Your task to perform on an android device: Go to accessibility settings Image 0: 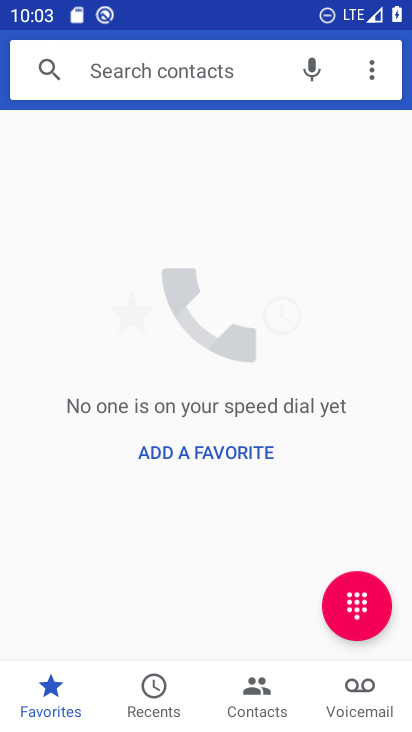
Step 0: press home button
Your task to perform on an android device: Go to accessibility settings Image 1: 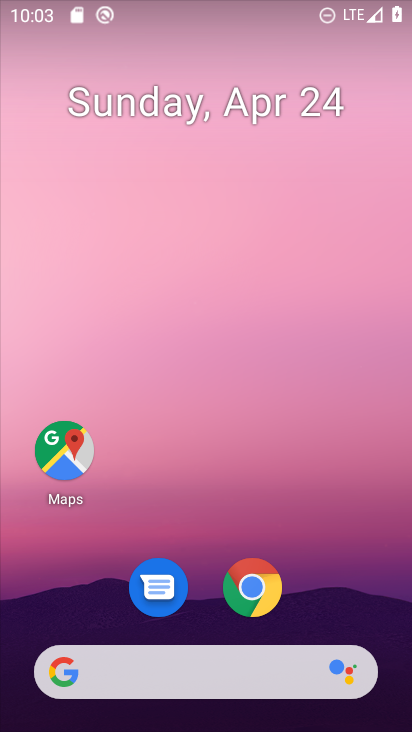
Step 1: drag from (358, 592) to (336, 147)
Your task to perform on an android device: Go to accessibility settings Image 2: 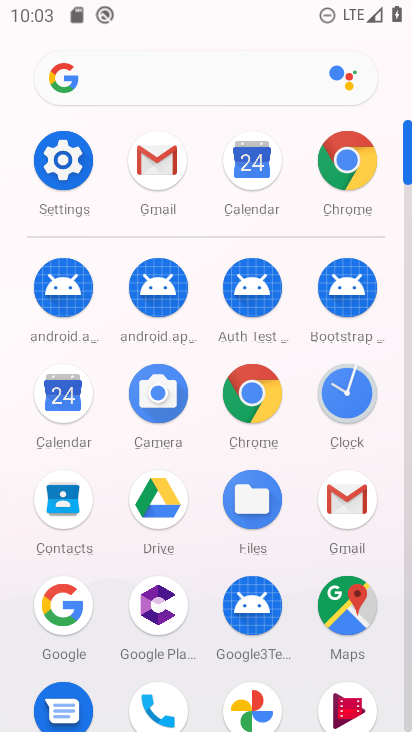
Step 2: click (53, 152)
Your task to perform on an android device: Go to accessibility settings Image 3: 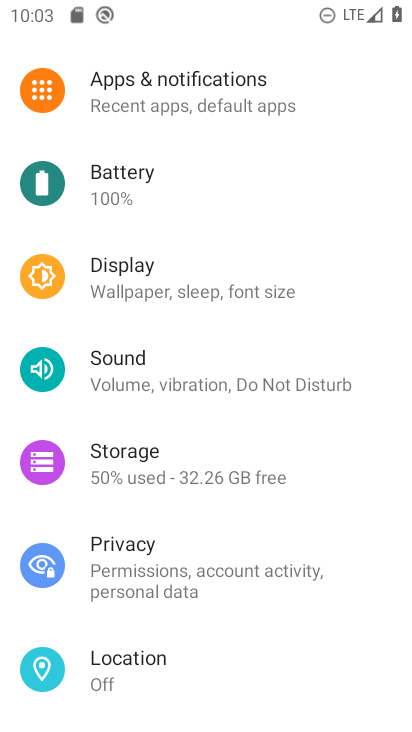
Step 3: drag from (195, 637) to (272, 248)
Your task to perform on an android device: Go to accessibility settings Image 4: 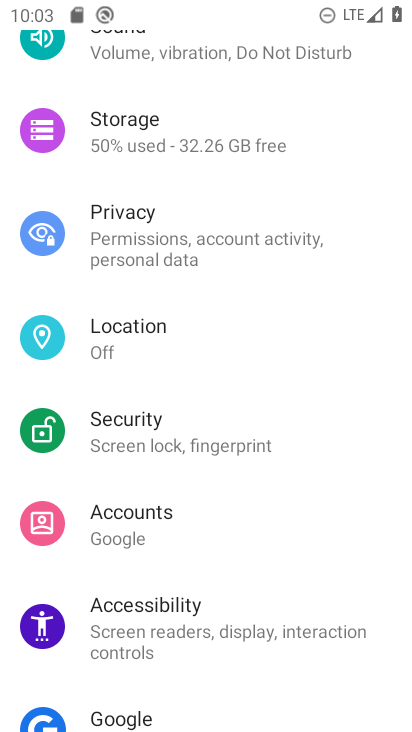
Step 4: click (184, 622)
Your task to perform on an android device: Go to accessibility settings Image 5: 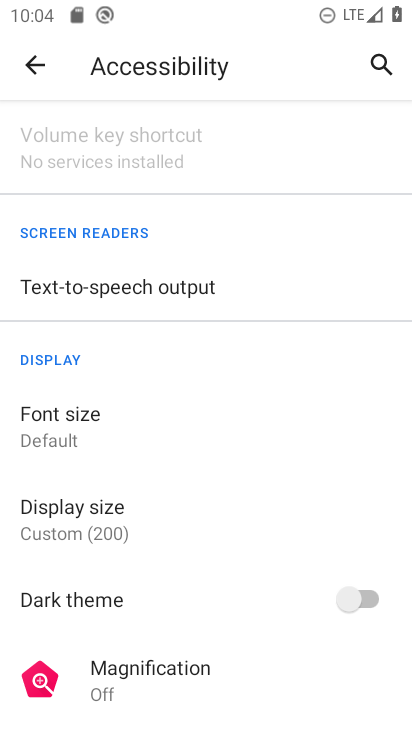
Step 5: task complete